Your task to perform on an android device: Open my contact list Image 0: 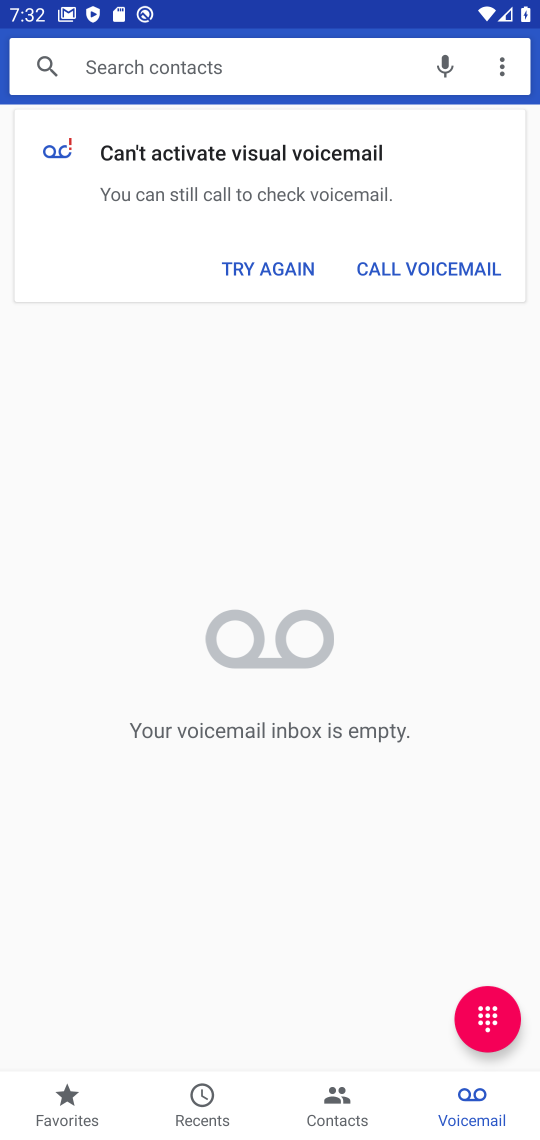
Step 0: press home button
Your task to perform on an android device: Open my contact list Image 1: 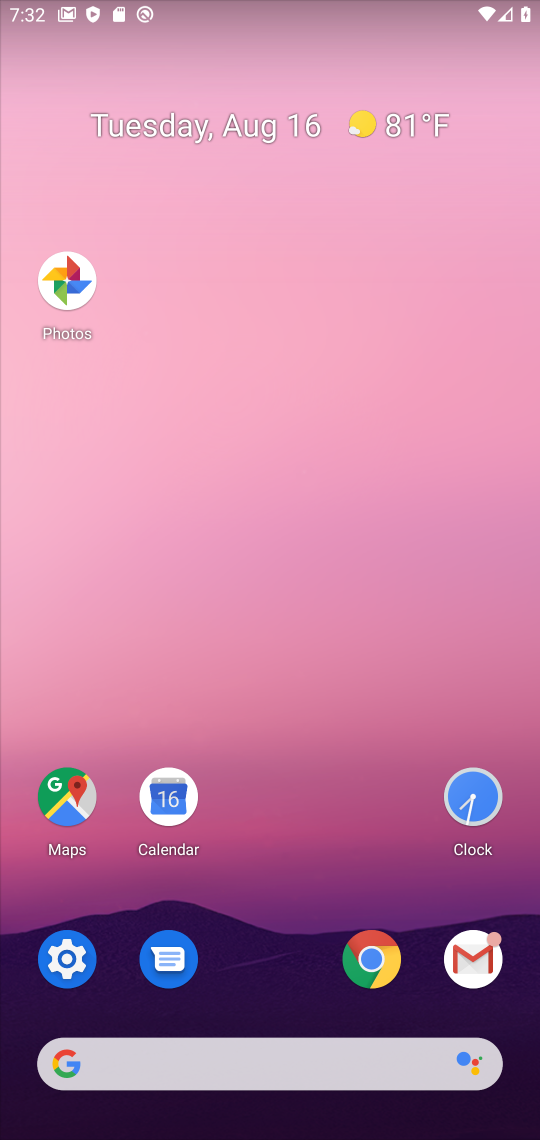
Step 1: drag from (265, 816) to (225, 208)
Your task to perform on an android device: Open my contact list Image 2: 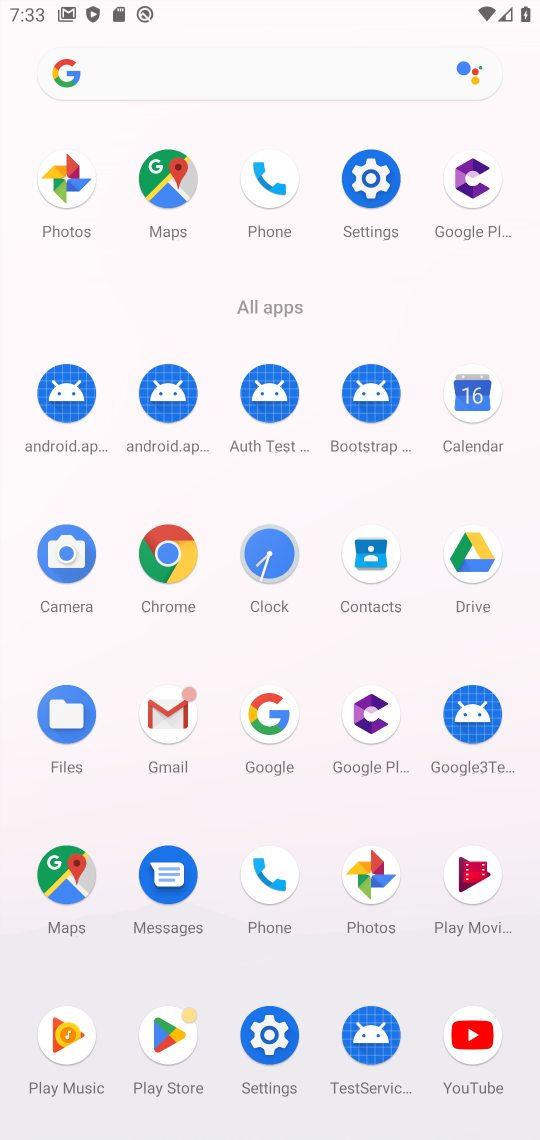
Step 2: click (376, 558)
Your task to perform on an android device: Open my contact list Image 3: 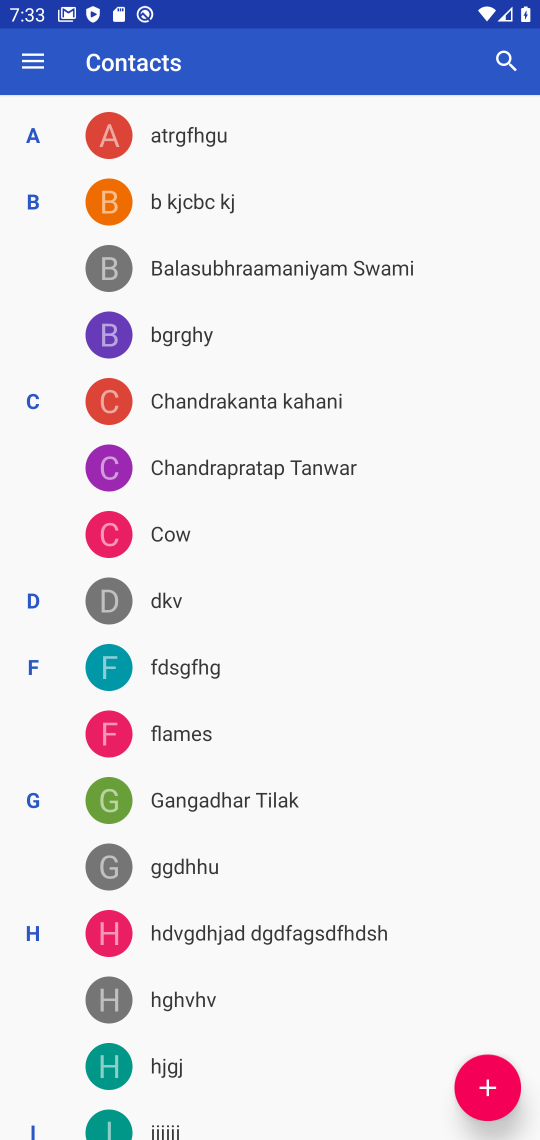
Step 3: task complete